Your task to perform on an android device: Open internet settings Image 0: 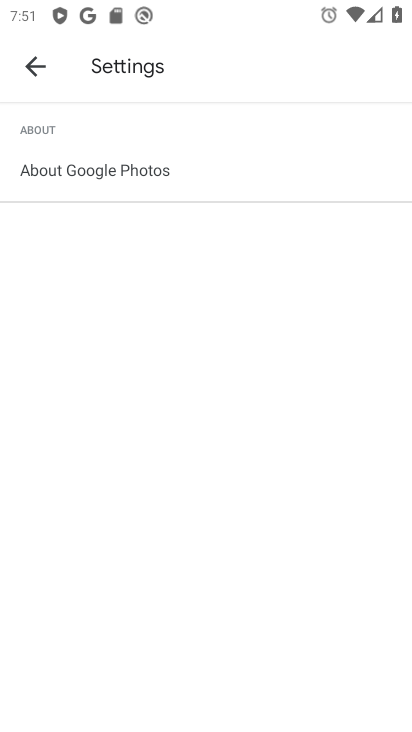
Step 0: press home button
Your task to perform on an android device: Open internet settings Image 1: 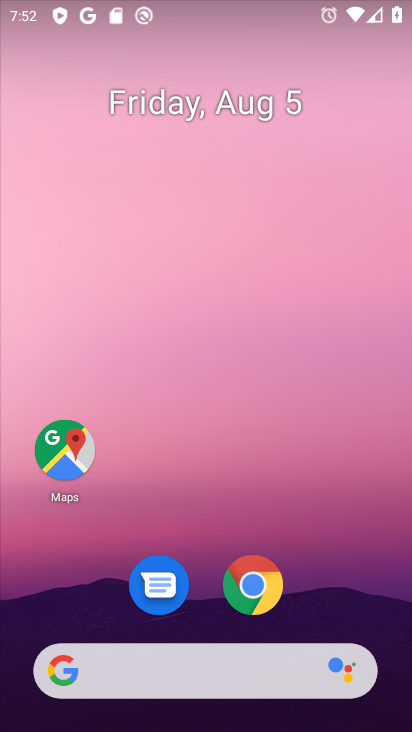
Step 1: drag from (274, 482) to (284, 3)
Your task to perform on an android device: Open internet settings Image 2: 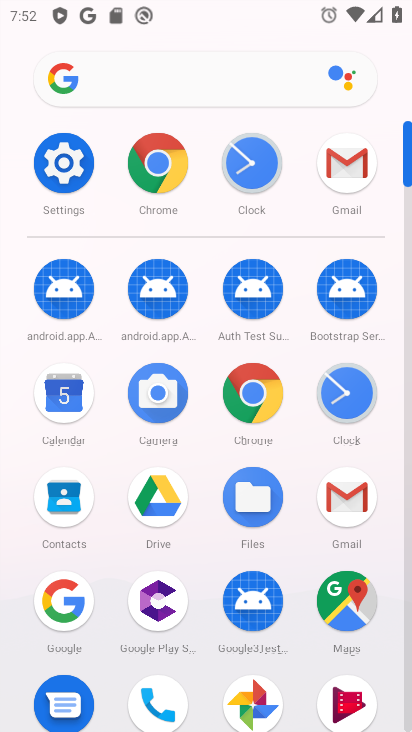
Step 2: click (65, 151)
Your task to perform on an android device: Open internet settings Image 3: 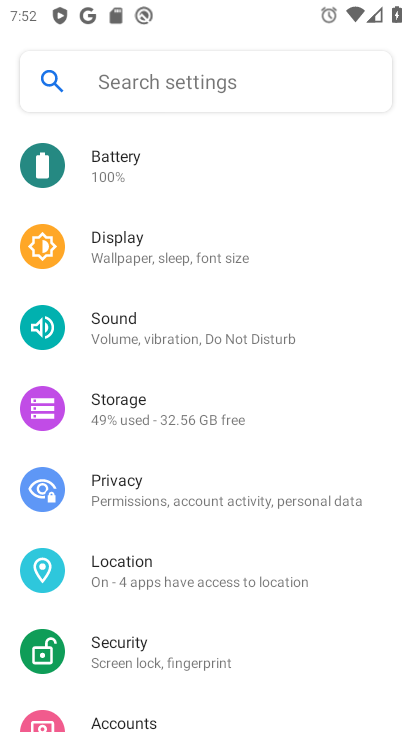
Step 3: drag from (227, 232) to (324, 620)
Your task to perform on an android device: Open internet settings Image 4: 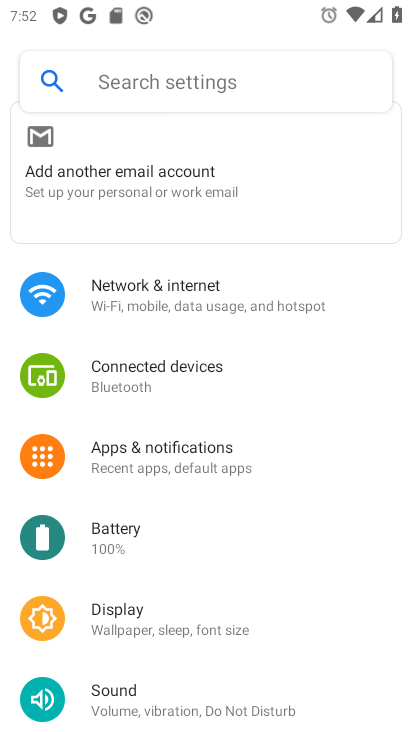
Step 4: click (238, 297)
Your task to perform on an android device: Open internet settings Image 5: 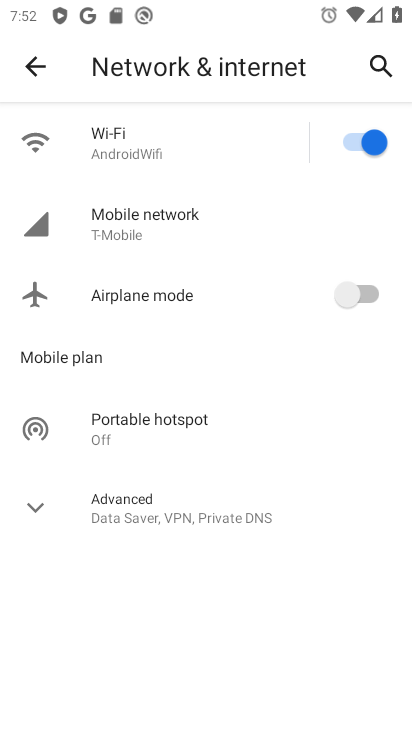
Step 5: task complete